Your task to perform on an android device: When is my next appointment? Image 0: 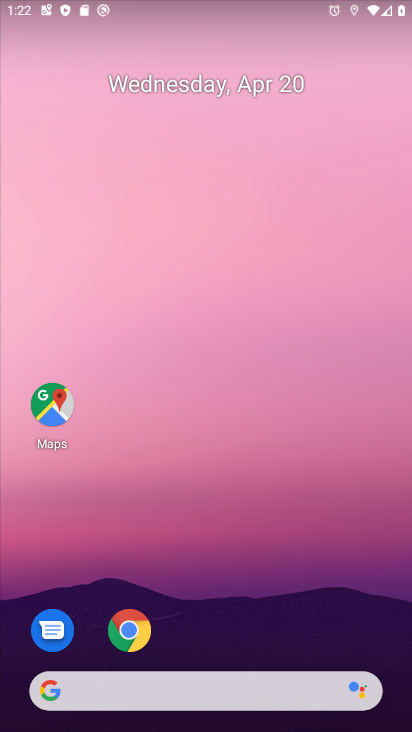
Step 0: drag from (229, 625) to (189, 66)
Your task to perform on an android device: When is my next appointment? Image 1: 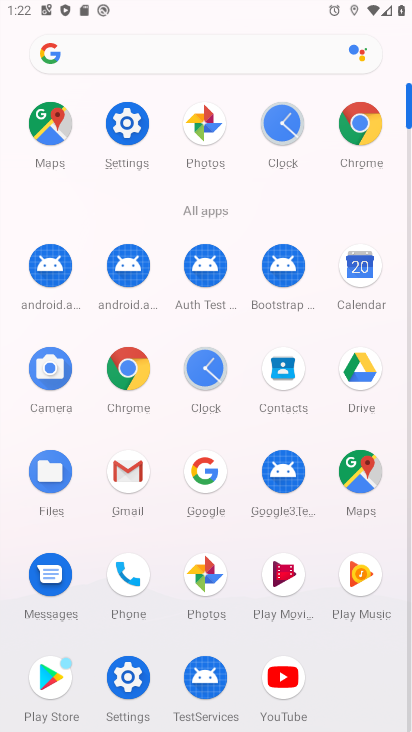
Step 1: click (361, 265)
Your task to perform on an android device: When is my next appointment? Image 2: 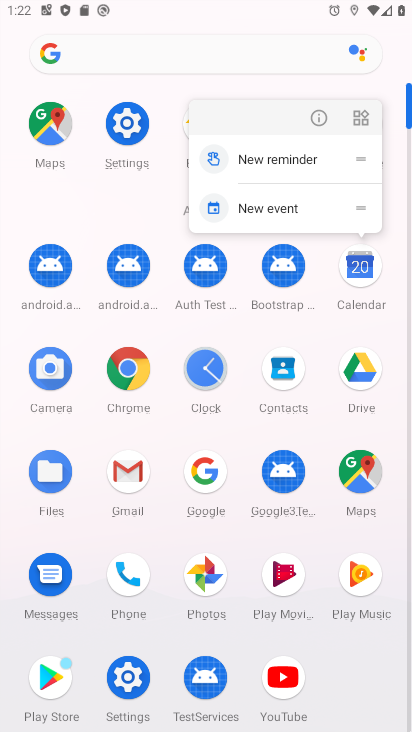
Step 2: click (385, 244)
Your task to perform on an android device: When is my next appointment? Image 3: 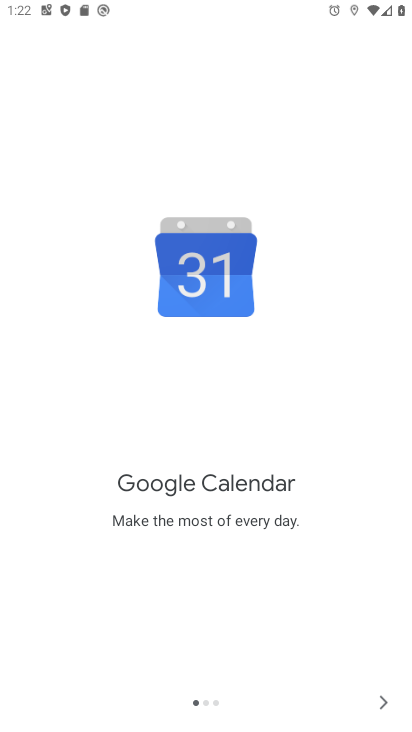
Step 3: click (383, 703)
Your task to perform on an android device: When is my next appointment? Image 4: 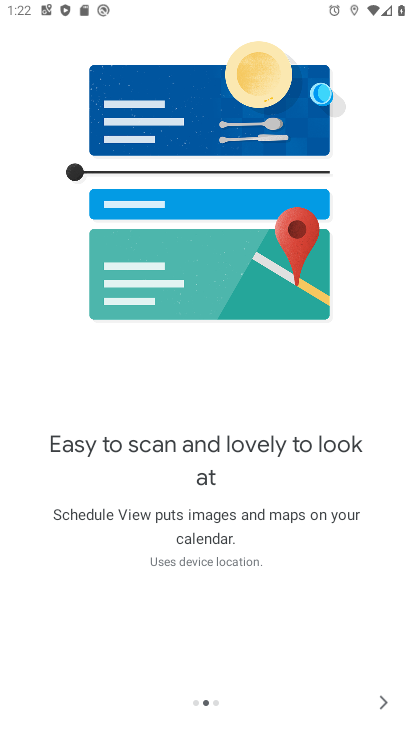
Step 4: click (383, 703)
Your task to perform on an android device: When is my next appointment? Image 5: 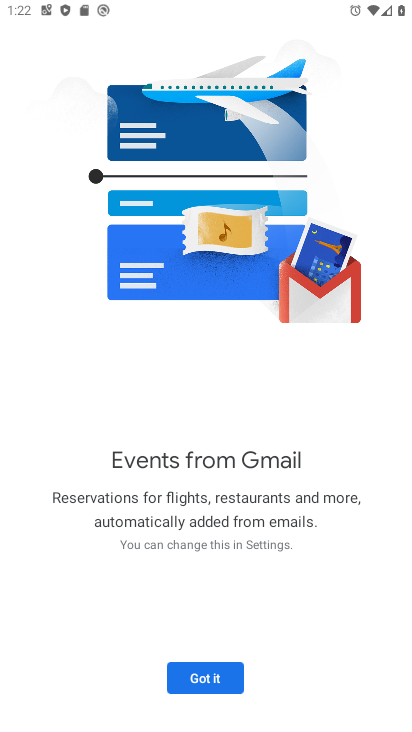
Step 5: click (189, 684)
Your task to perform on an android device: When is my next appointment? Image 6: 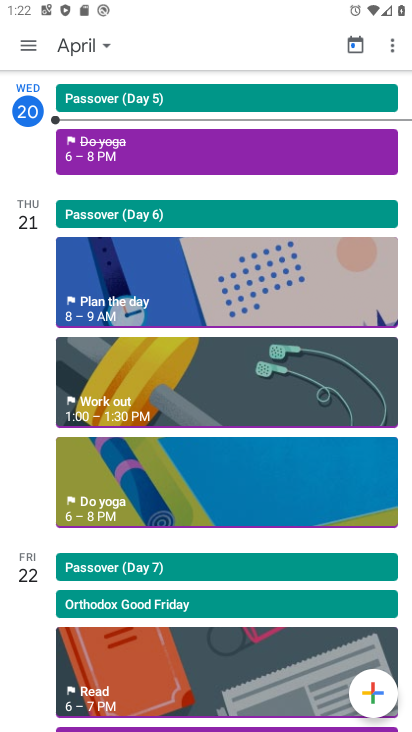
Step 6: click (136, 160)
Your task to perform on an android device: When is my next appointment? Image 7: 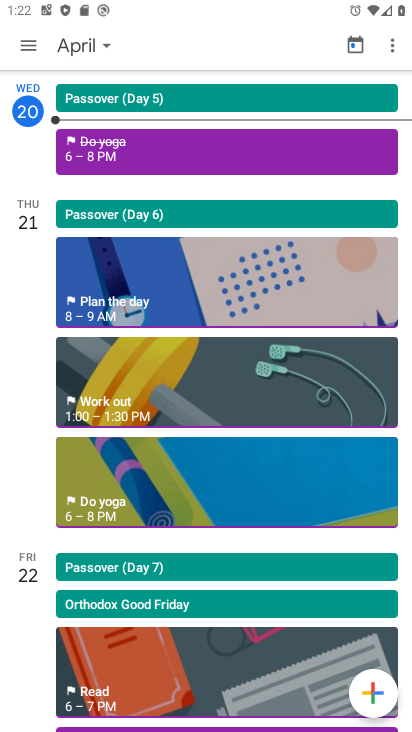
Step 7: task complete